Your task to perform on an android device: change timer sound Image 0: 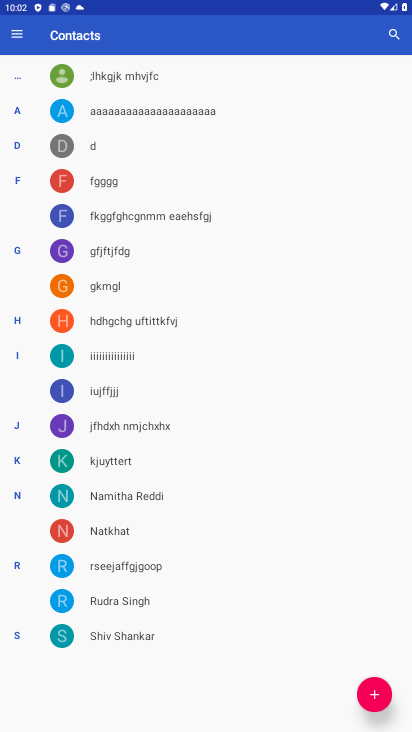
Step 0: task complete